Your task to perform on an android device: delete location history Image 0: 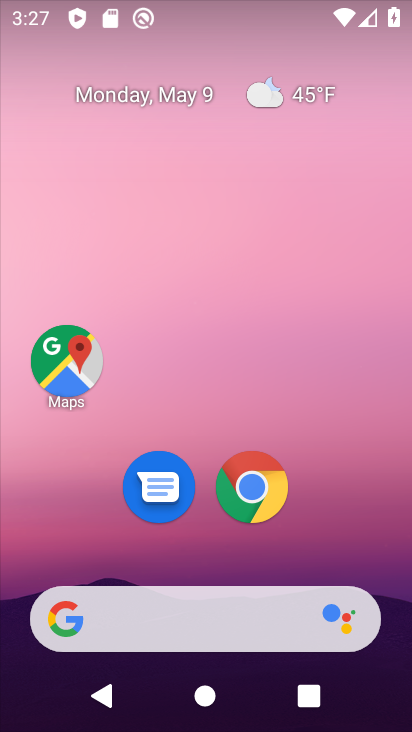
Step 0: drag from (188, 589) to (209, 178)
Your task to perform on an android device: delete location history Image 1: 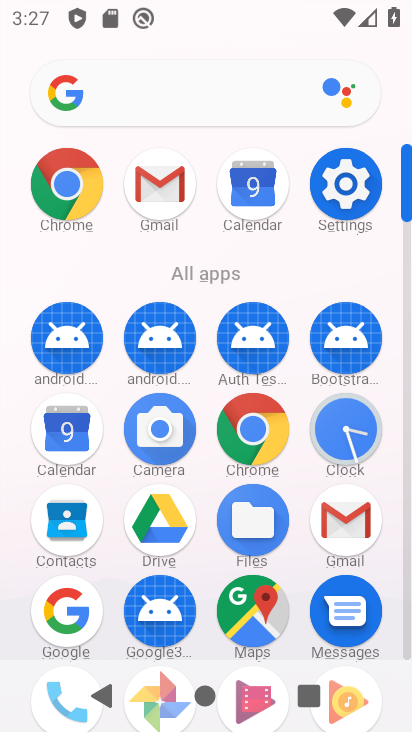
Step 1: click (353, 183)
Your task to perform on an android device: delete location history Image 2: 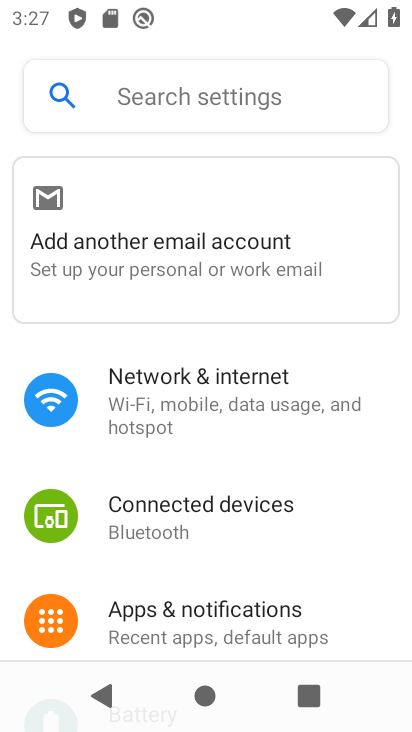
Step 2: drag from (219, 621) to (202, 275)
Your task to perform on an android device: delete location history Image 3: 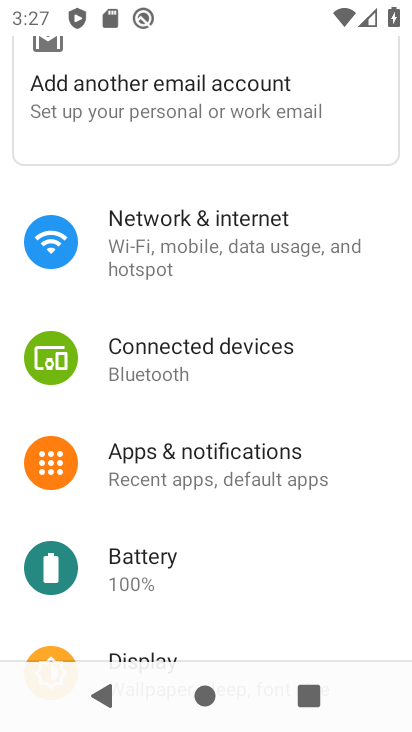
Step 3: drag from (173, 630) to (177, 297)
Your task to perform on an android device: delete location history Image 4: 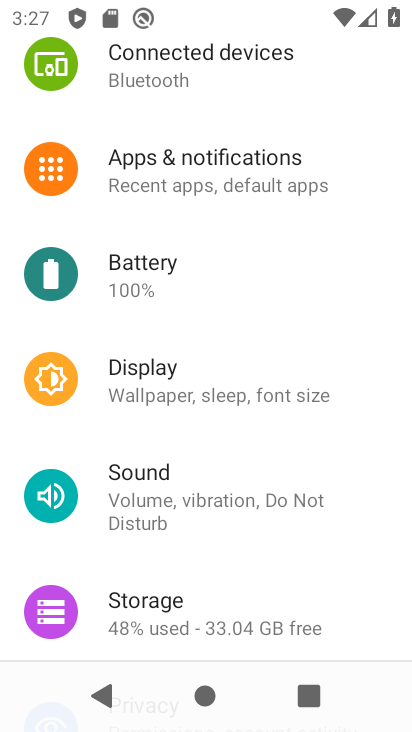
Step 4: drag from (178, 639) to (189, 283)
Your task to perform on an android device: delete location history Image 5: 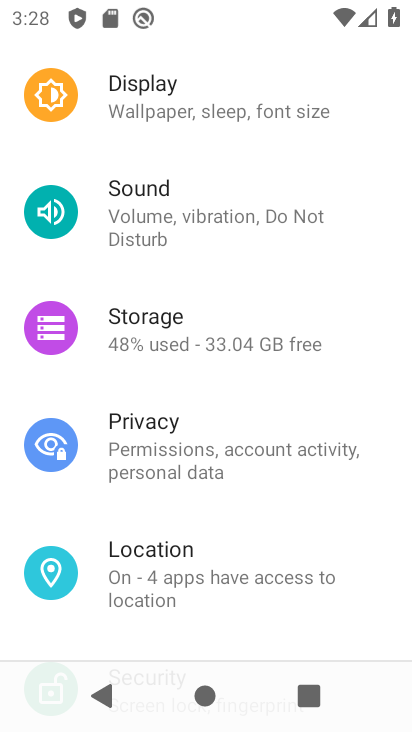
Step 5: click (147, 572)
Your task to perform on an android device: delete location history Image 6: 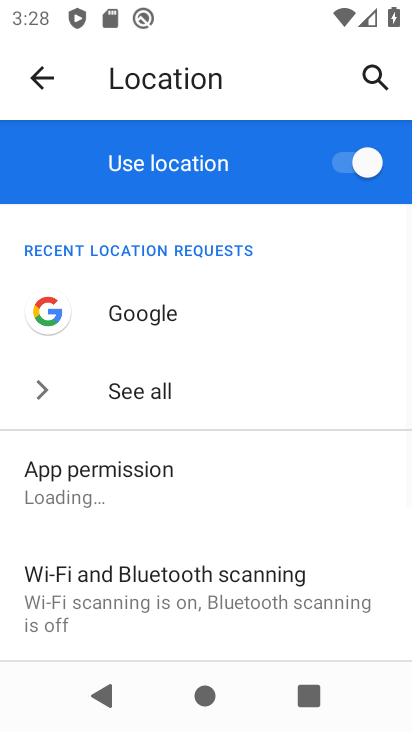
Step 6: drag from (154, 641) to (160, 314)
Your task to perform on an android device: delete location history Image 7: 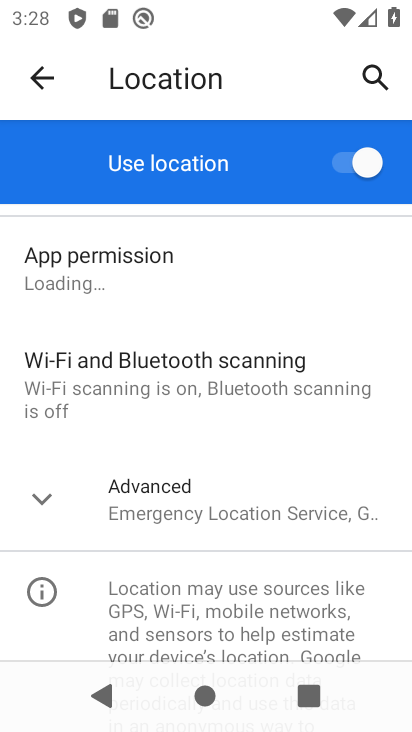
Step 7: click (147, 515)
Your task to perform on an android device: delete location history Image 8: 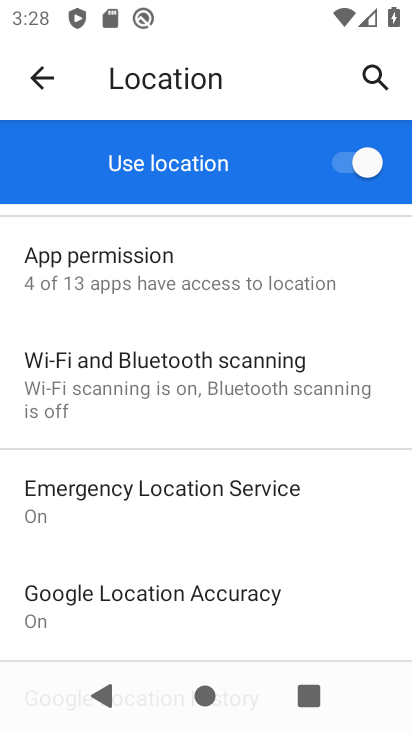
Step 8: drag from (149, 624) to (174, 336)
Your task to perform on an android device: delete location history Image 9: 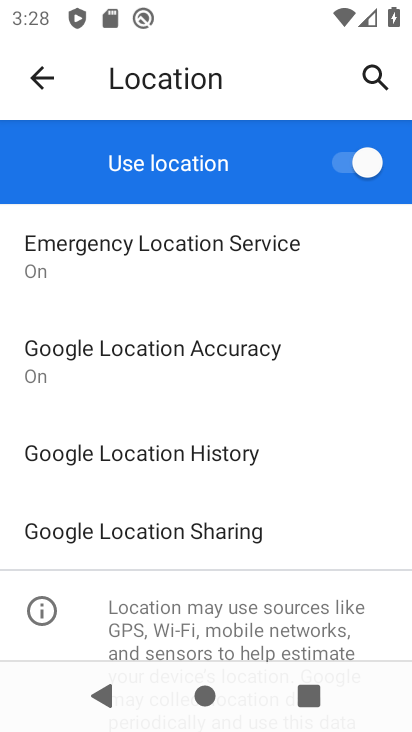
Step 9: click (202, 441)
Your task to perform on an android device: delete location history Image 10: 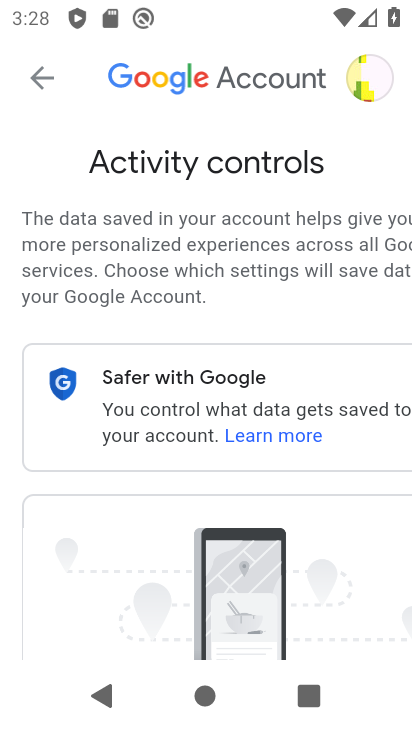
Step 10: drag from (147, 639) to (164, 213)
Your task to perform on an android device: delete location history Image 11: 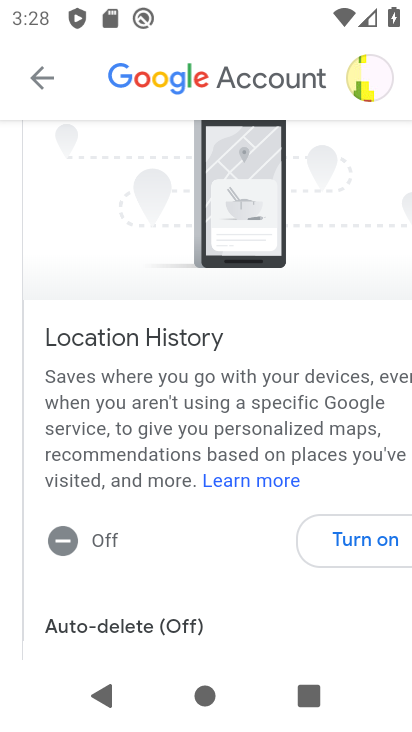
Step 11: drag from (167, 643) to (156, 352)
Your task to perform on an android device: delete location history Image 12: 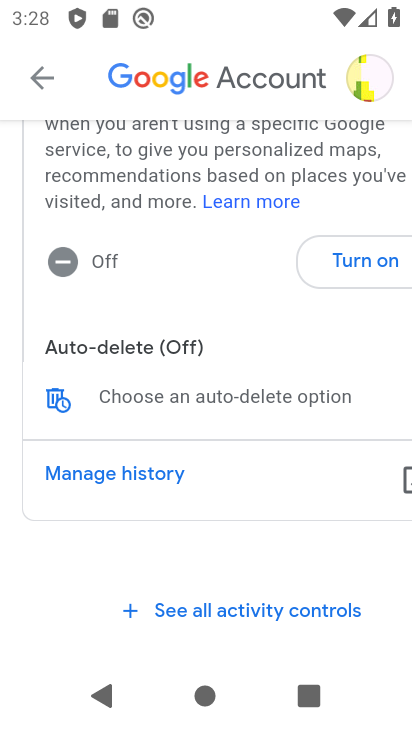
Step 12: click (194, 399)
Your task to perform on an android device: delete location history Image 13: 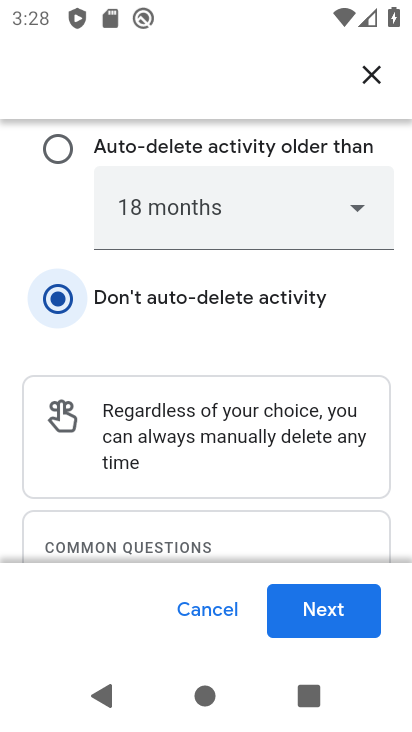
Step 13: click (321, 623)
Your task to perform on an android device: delete location history Image 14: 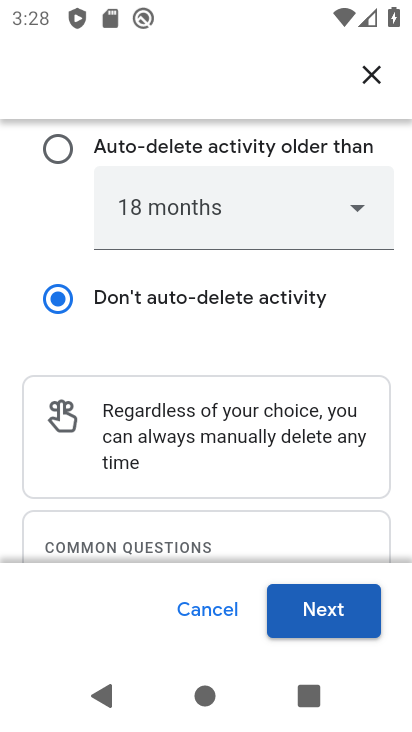
Step 14: click (322, 615)
Your task to perform on an android device: delete location history Image 15: 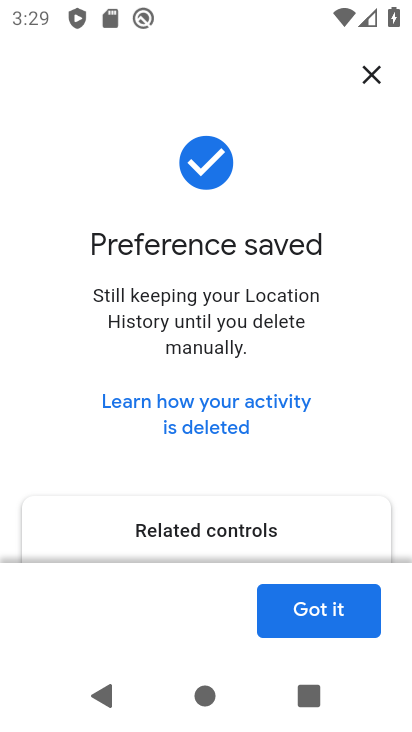
Step 15: click (322, 615)
Your task to perform on an android device: delete location history Image 16: 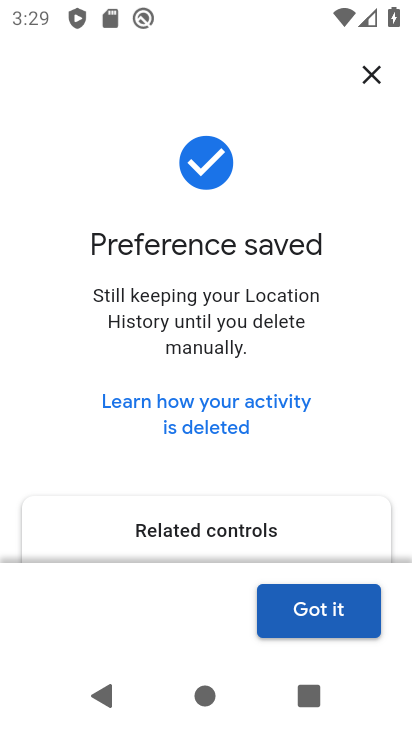
Step 16: click (313, 618)
Your task to perform on an android device: delete location history Image 17: 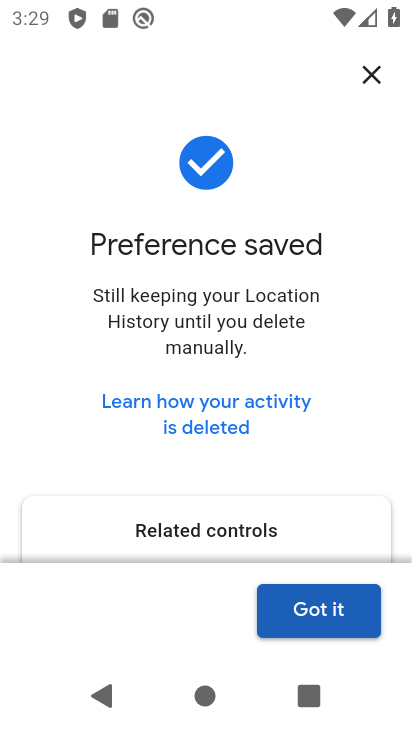
Step 17: click (304, 605)
Your task to perform on an android device: delete location history Image 18: 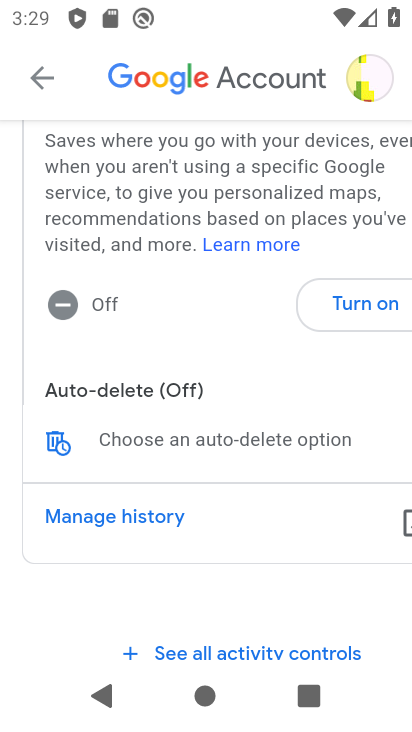
Step 18: task complete